Your task to perform on an android device: change your default location settings in chrome Image 0: 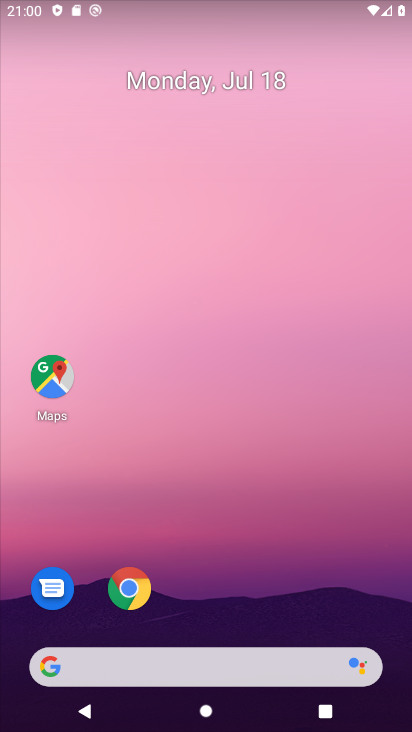
Step 0: press home button
Your task to perform on an android device: change your default location settings in chrome Image 1: 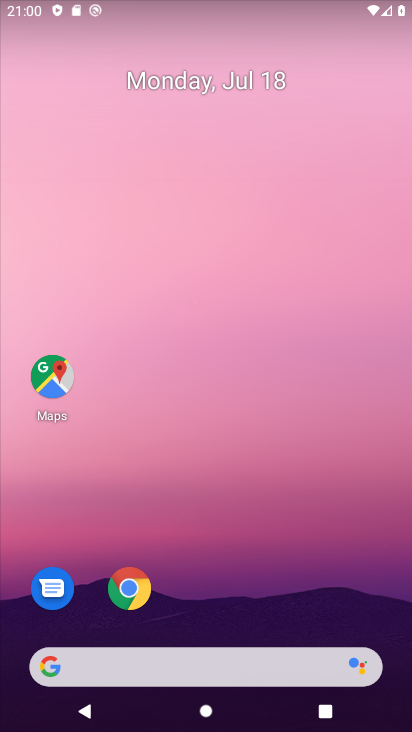
Step 1: click (133, 586)
Your task to perform on an android device: change your default location settings in chrome Image 2: 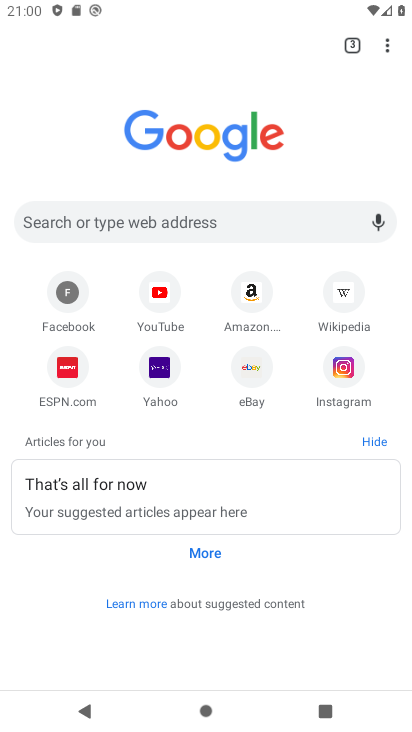
Step 2: drag from (387, 43) to (250, 385)
Your task to perform on an android device: change your default location settings in chrome Image 3: 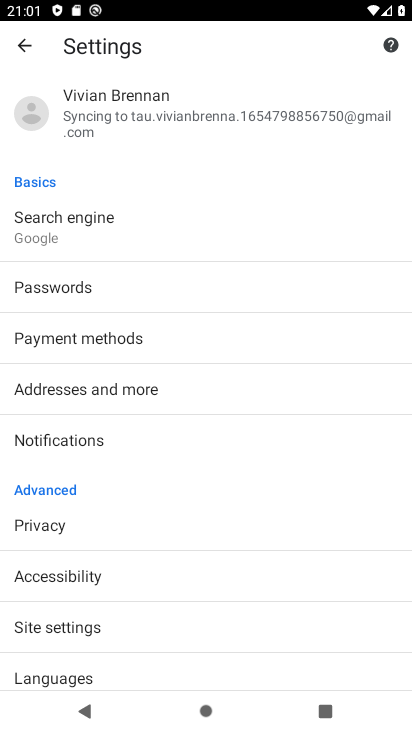
Step 3: click (97, 623)
Your task to perform on an android device: change your default location settings in chrome Image 4: 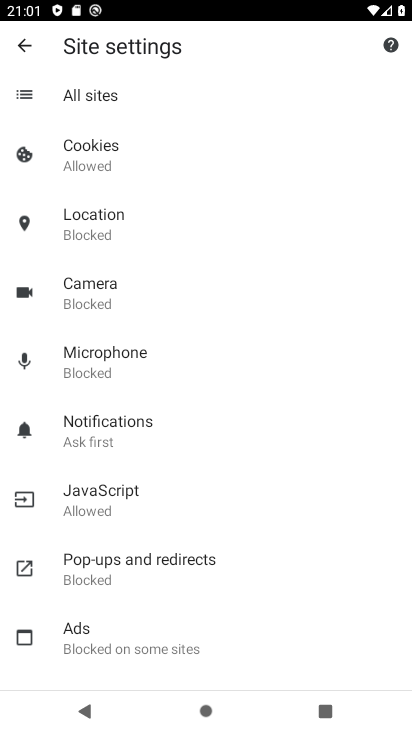
Step 4: click (108, 221)
Your task to perform on an android device: change your default location settings in chrome Image 5: 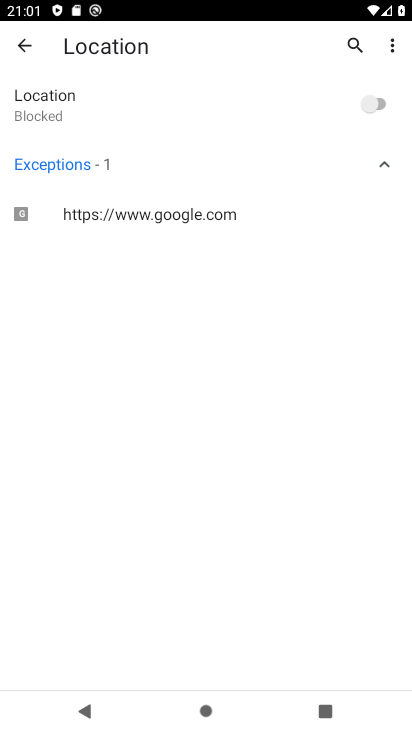
Step 5: click (378, 101)
Your task to perform on an android device: change your default location settings in chrome Image 6: 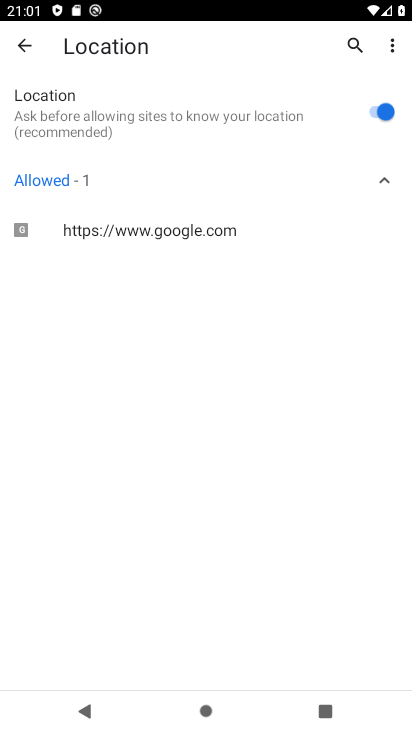
Step 6: task complete